Your task to perform on an android device: Open Google Chrome Image 0: 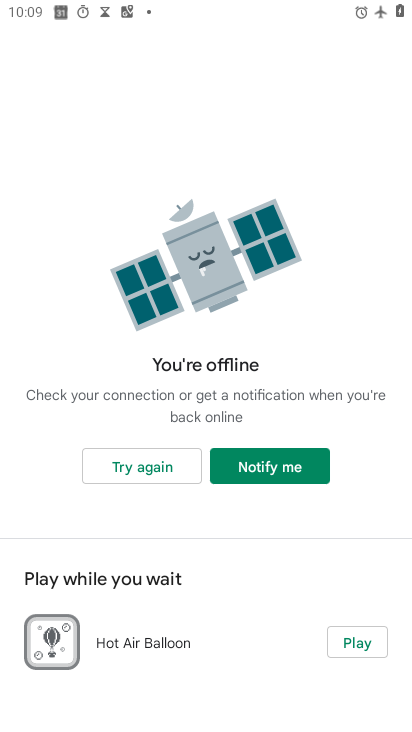
Step 0: press home button
Your task to perform on an android device: Open Google Chrome Image 1: 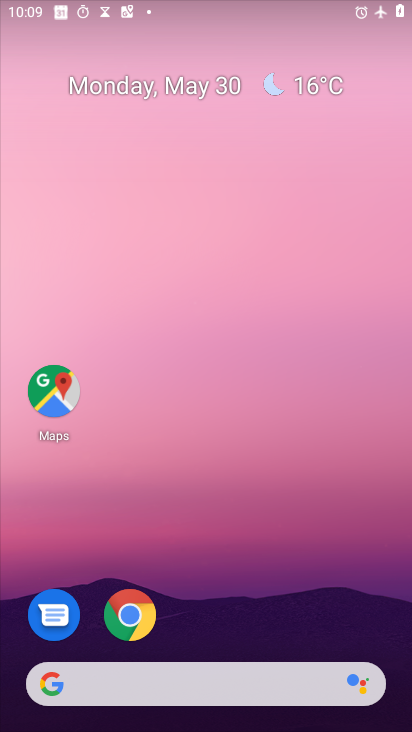
Step 1: drag from (265, 599) to (405, 50)
Your task to perform on an android device: Open Google Chrome Image 2: 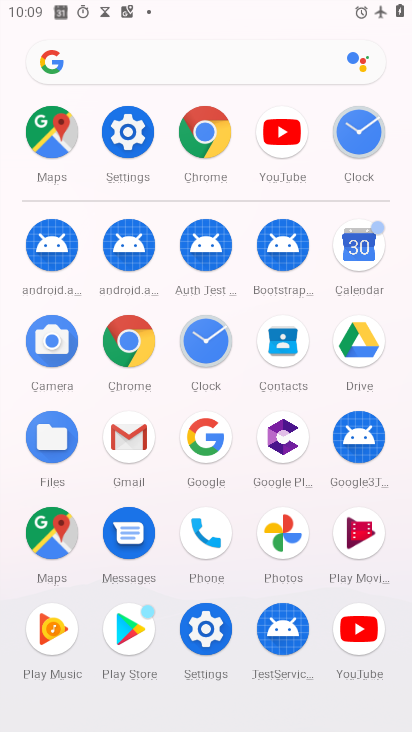
Step 2: click (207, 160)
Your task to perform on an android device: Open Google Chrome Image 3: 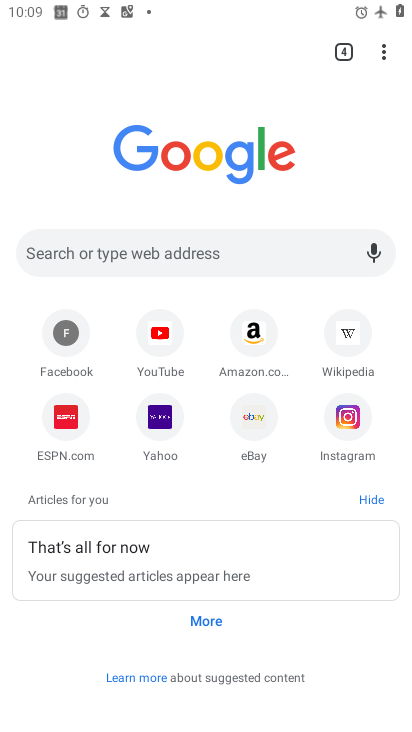
Step 3: drag from (261, 590) to (255, 361)
Your task to perform on an android device: Open Google Chrome Image 4: 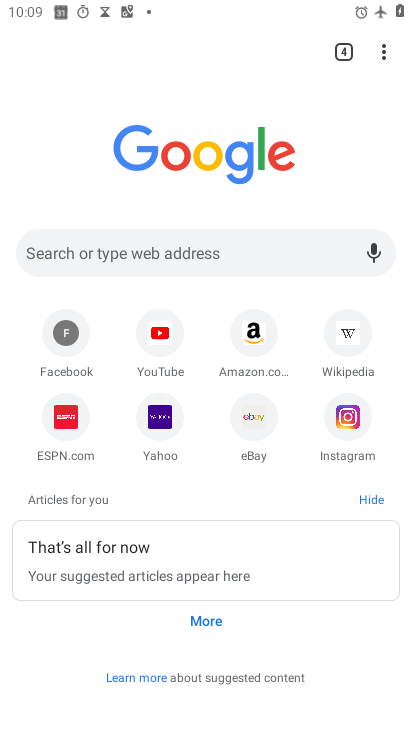
Step 4: click (202, 625)
Your task to perform on an android device: Open Google Chrome Image 5: 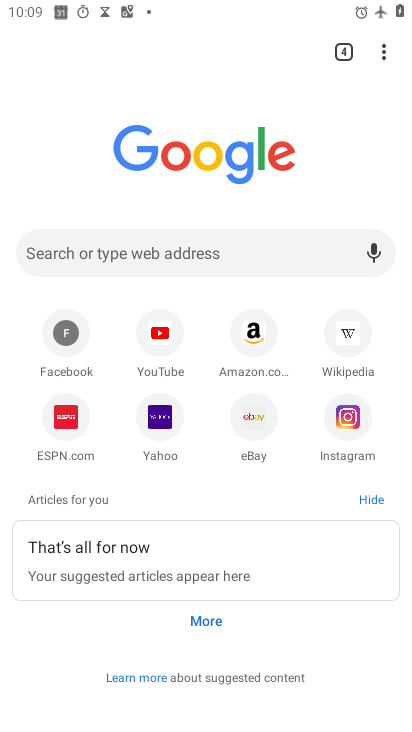
Step 5: task complete